Your task to perform on an android device: Go to settings Image 0: 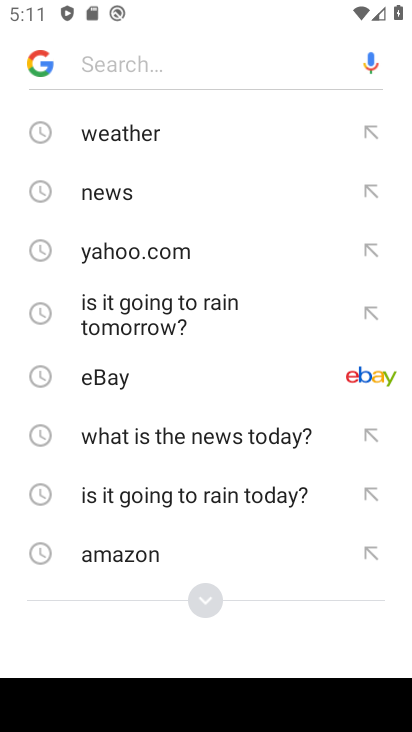
Step 0: press back button
Your task to perform on an android device: Go to settings Image 1: 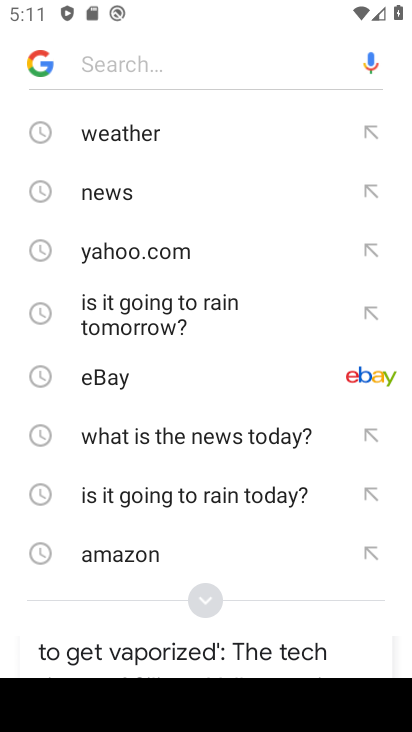
Step 1: press back button
Your task to perform on an android device: Go to settings Image 2: 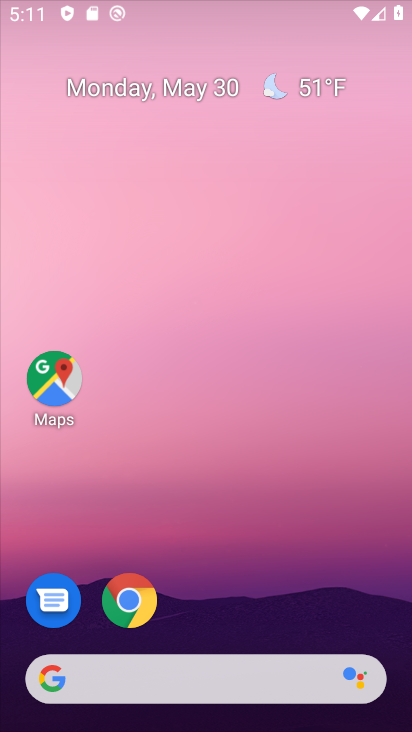
Step 2: press home button
Your task to perform on an android device: Go to settings Image 3: 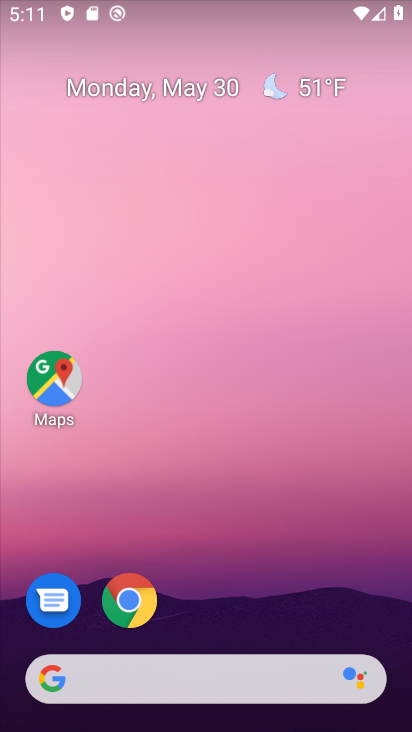
Step 3: press home button
Your task to perform on an android device: Go to settings Image 4: 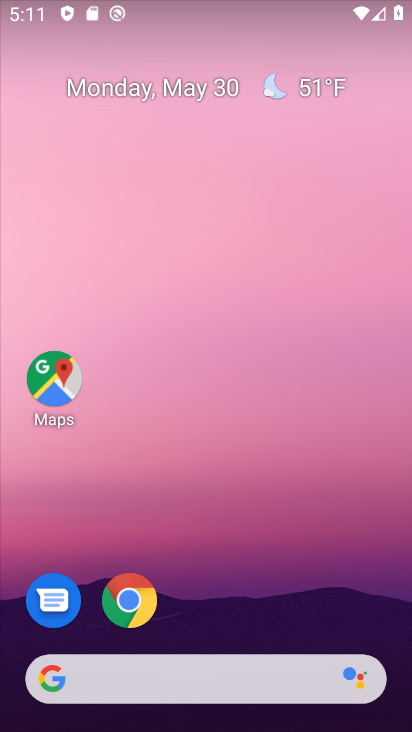
Step 4: press home button
Your task to perform on an android device: Go to settings Image 5: 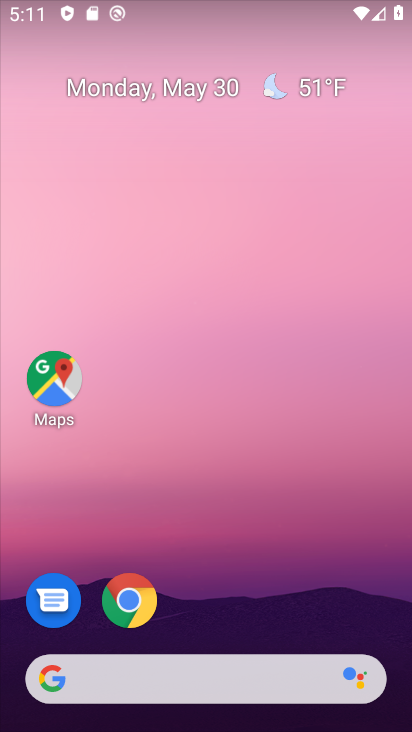
Step 5: drag from (246, 518) to (158, 42)
Your task to perform on an android device: Go to settings Image 6: 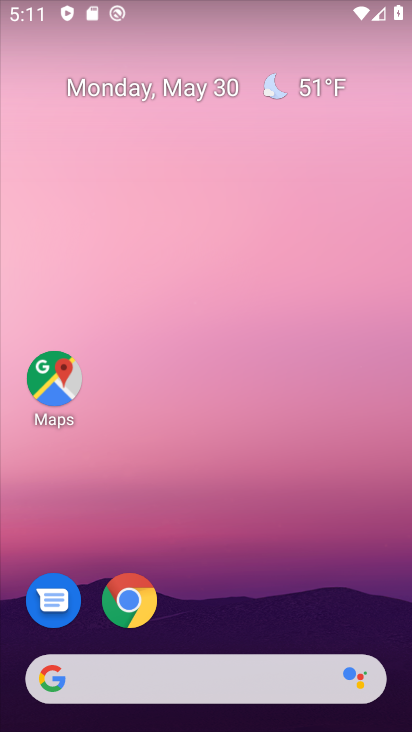
Step 6: drag from (204, 487) to (147, 21)
Your task to perform on an android device: Go to settings Image 7: 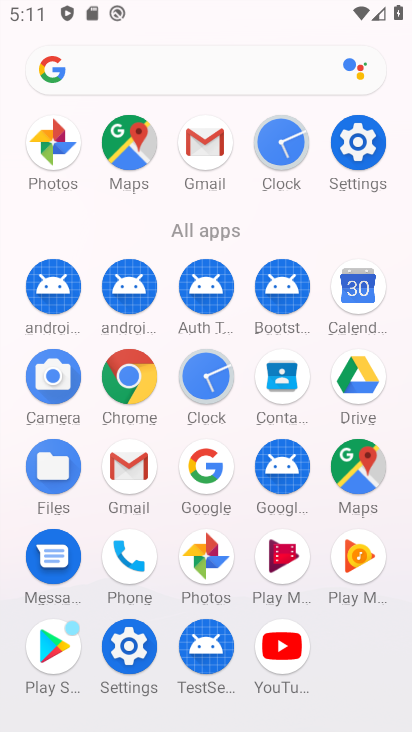
Step 7: click (345, 154)
Your task to perform on an android device: Go to settings Image 8: 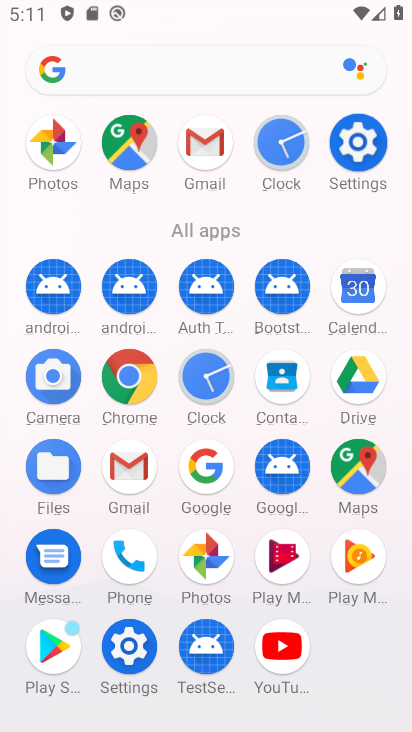
Step 8: click (350, 150)
Your task to perform on an android device: Go to settings Image 9: 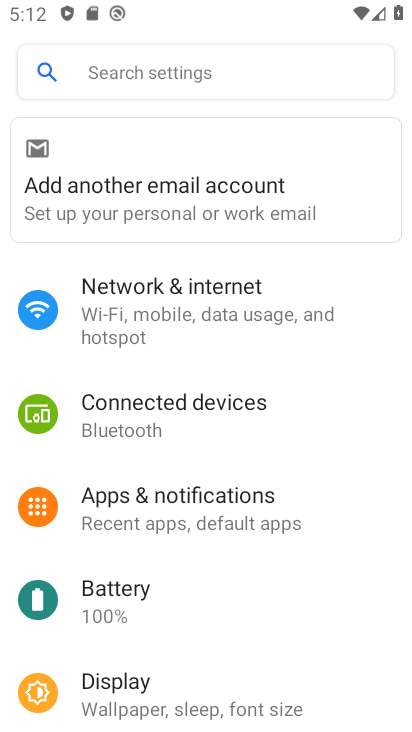
Step 9: task complete